Your task to perform on an android device: snooze an email in the gmail app Image 0: 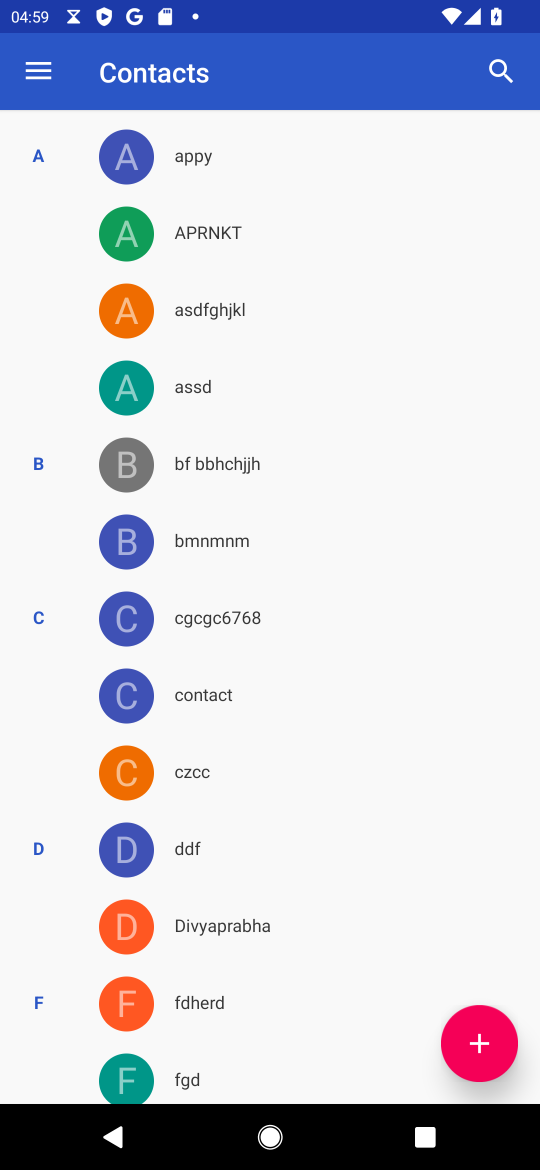
Step 0: press home button
Your task to perform on an android device: snooze an email in the gmail app Image 1: 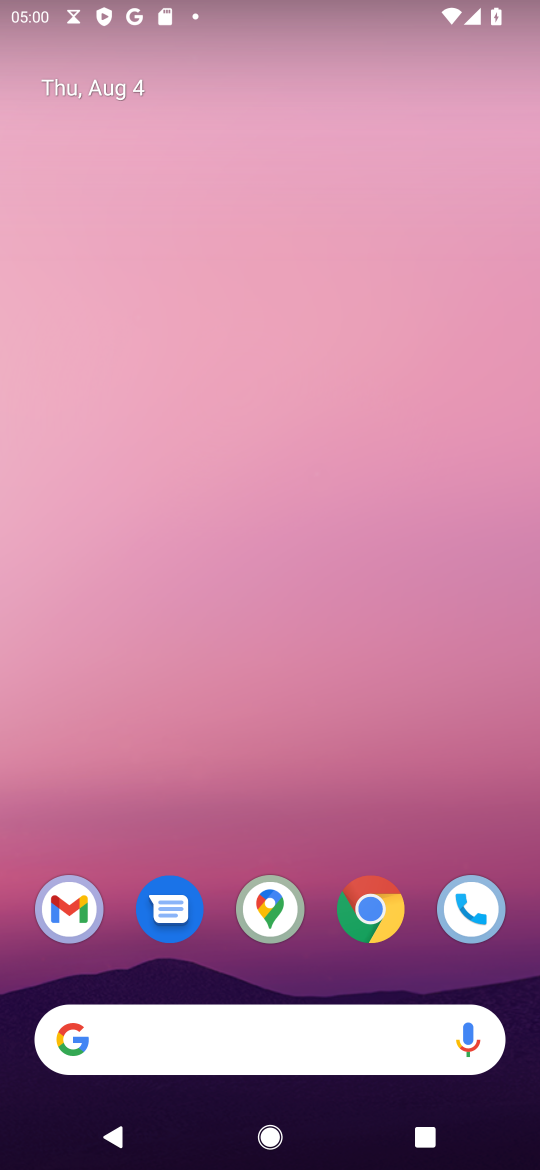
Step 1: click (62, 920)
Your task to perform on an android device: snooze an email in the gmail app Image 2: 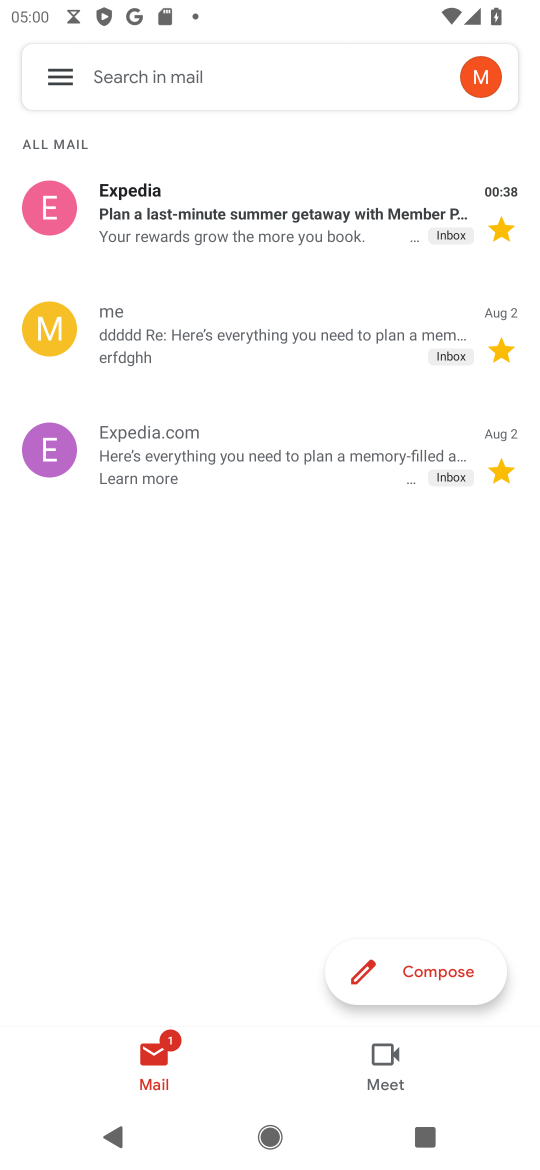
Step 2: click (49, 217)
Your task to perform on an android device: snooze an email in the gmail app Image 3: 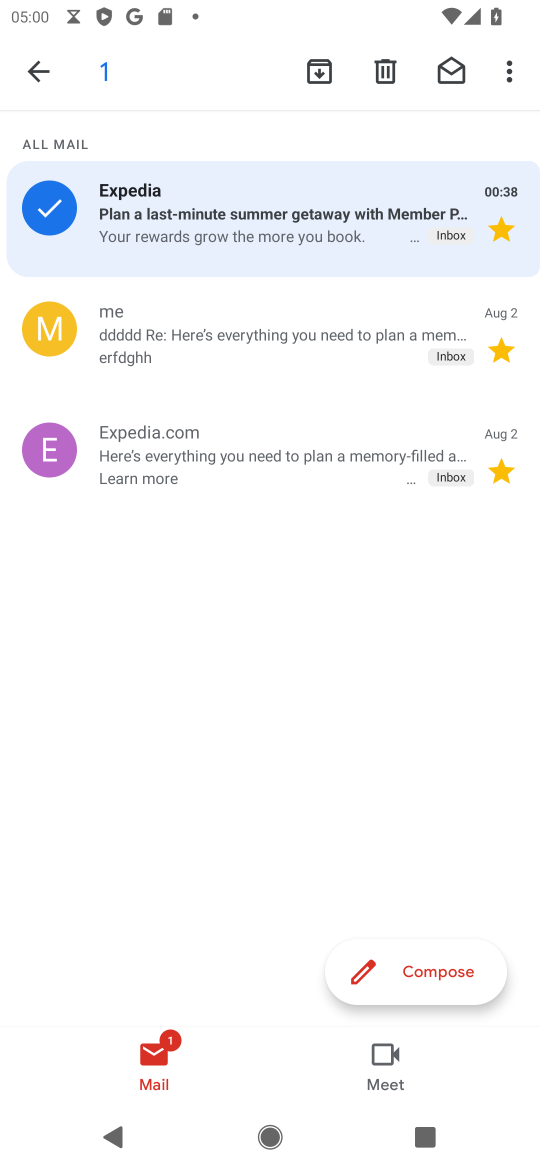
Step 3: click (510, 71)
Your task to perform on an android device: snooze an email in the gmail app Image 4: 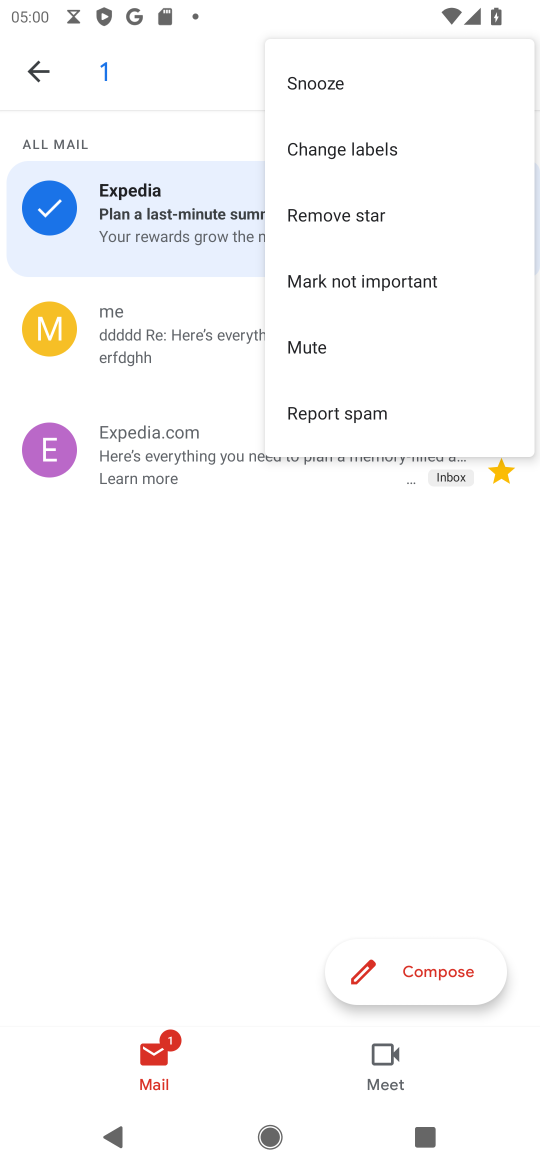
Step 4: click (342, 82)
Your task to perform on an android device: snooze an email in the gmail app Image 5: 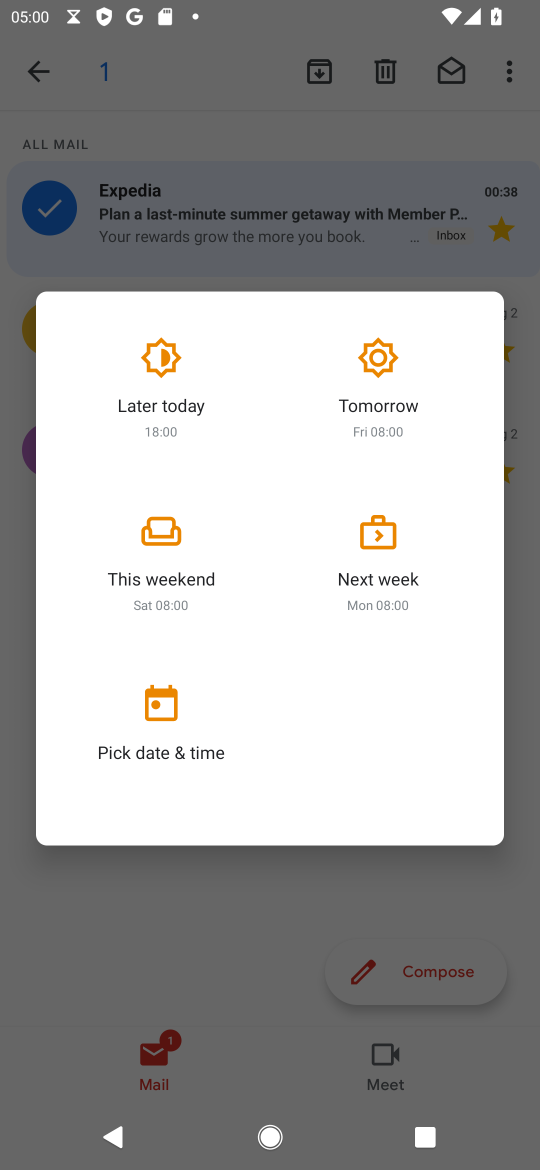
Step 5: click (168, 388)
Your task to perform on an android device: snooze an email in the gmail app Image 6: 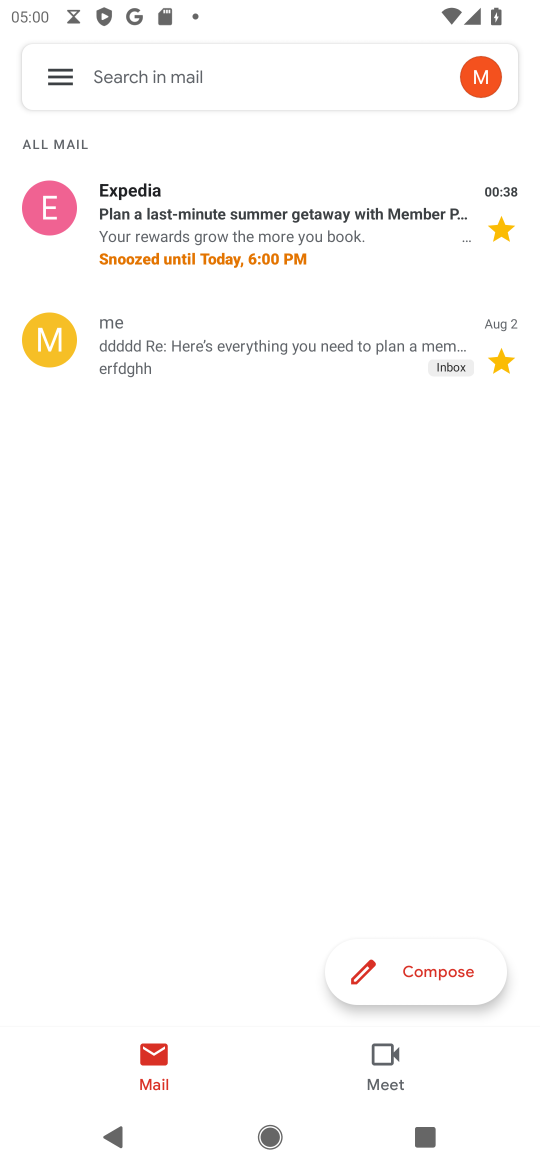
Step 6: task complete